Your task to perform on an android device: Is it going to rain today? Image 0: 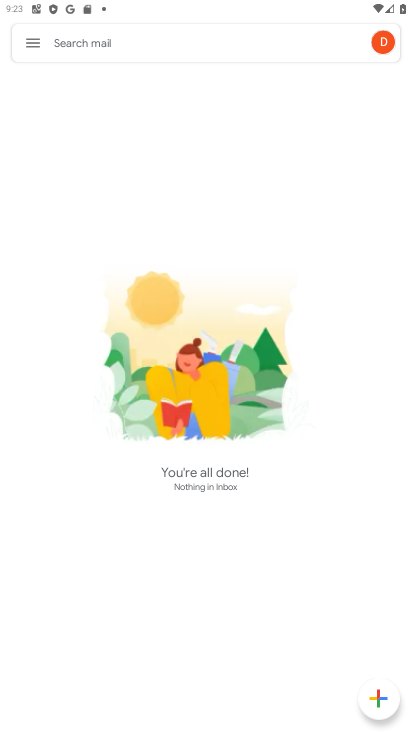
Step 0: press home button
Your task to perform on an android device: Is it going to rain today? Image 1: 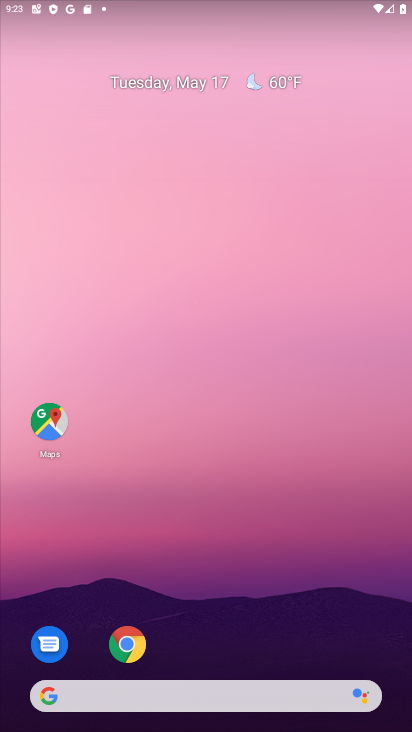
Step 1: click (284, 89)
Your task to perform on an android device: Is it going to rain today? Image 2: 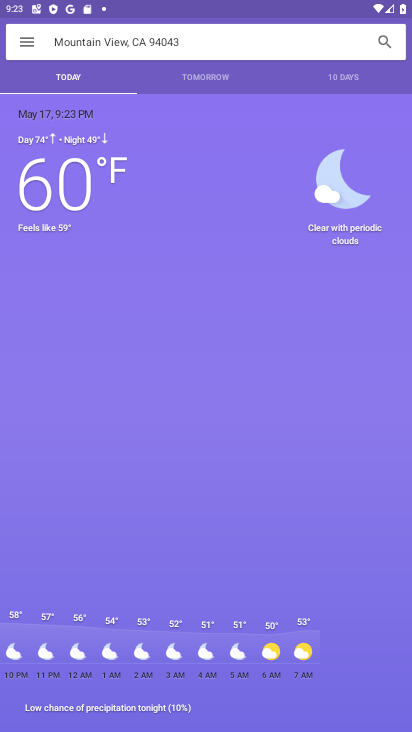
Step 2: task complete